Your task to perform on an android device: Is it going to rain tomorrow? Image 0: 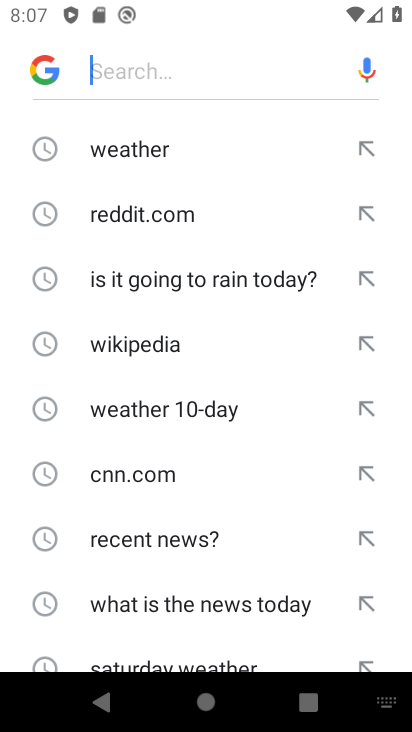
Step 0: click (125, 148)
Your task to perform on an android device: Is it going to rain tomorrow? Image 1: 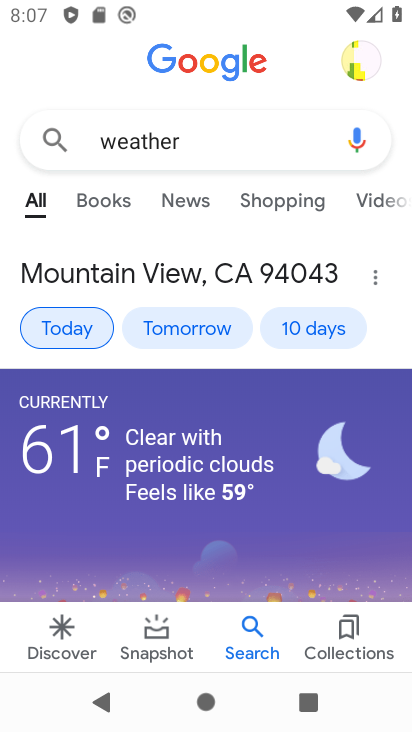
Step 1: click (198, 332)
Your task to perform on an android device: Is it going to rain tomorrow? Image 2: 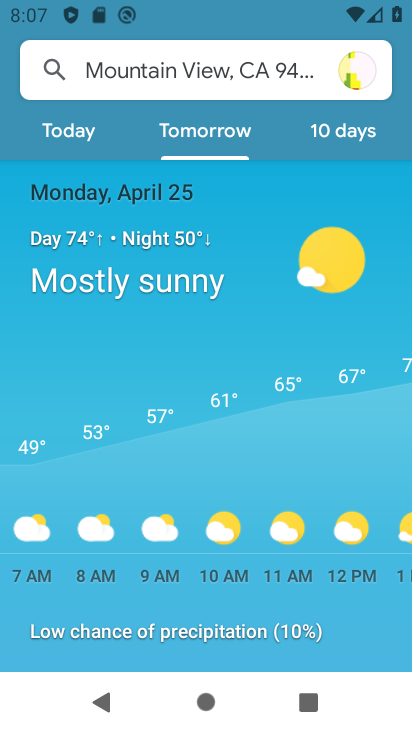
Step 2: click (349, 128)
Your task to perform on an android device: Is it going to rain tomorrow? Image 3: 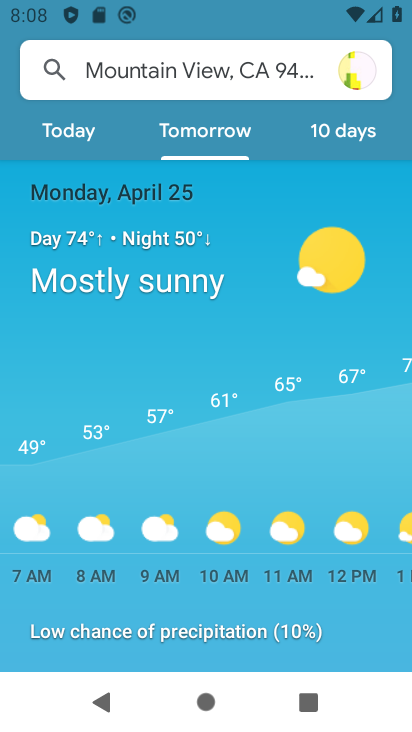
Step 3: click (329, 132)
Your task to perform on an android device: Is it going to rain tomorrow? Image 4: 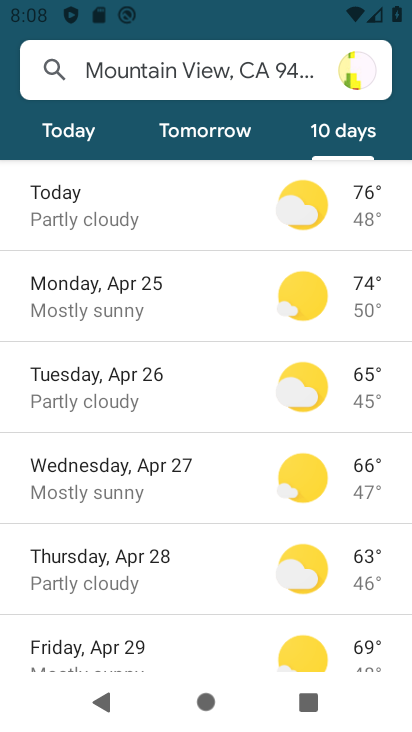
Step 4: click (164, 383)
Your task to perform on an android device: Is it going to rain tomorrow? Image 5: 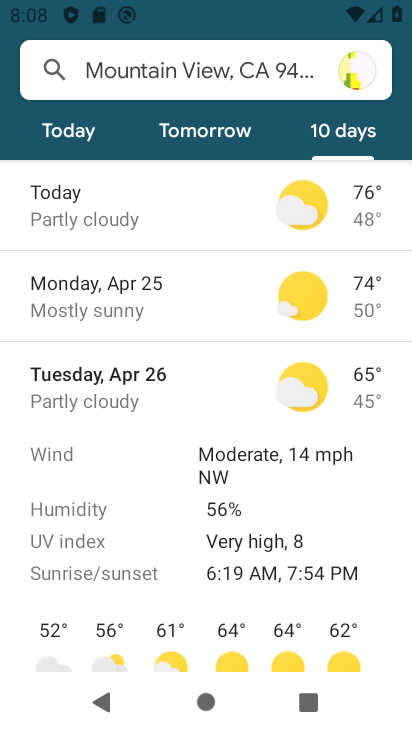
Step 5: drag from (152, 529) to (128, 319)
Your task to perform on an android device: Is it going to rain tomorrow? Image 6: 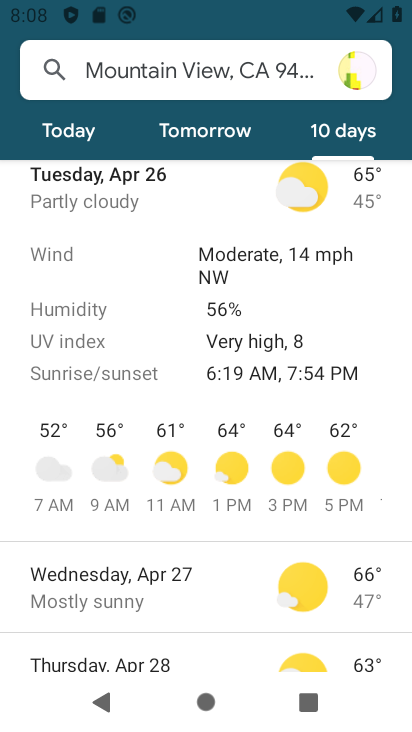
Step 6: drag from (179, 292) to (174, 449)
Your task to perform on an android device: Is it going to rain tomorrow? Image 7: 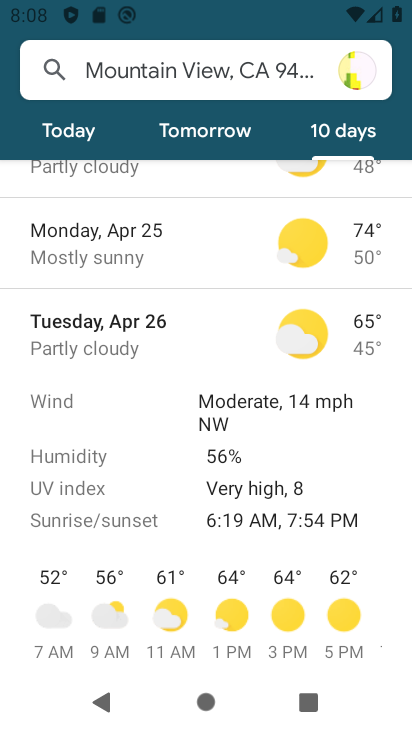
Step 7: click (174, 441)
Your task to perform on an android device: Is it going to rain tomorrow? Image 8: 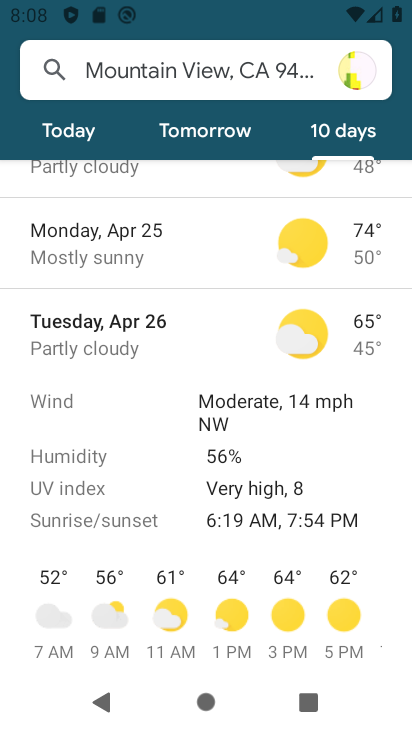
Step 8: task complete